Your task to perform on an android device: toggle location history Image 0: 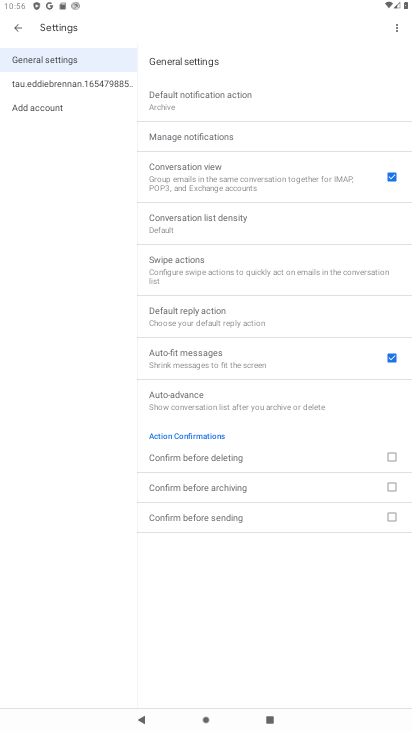
Step 0: press home button
Your task to perform on an android device: toggle location history Image 1: 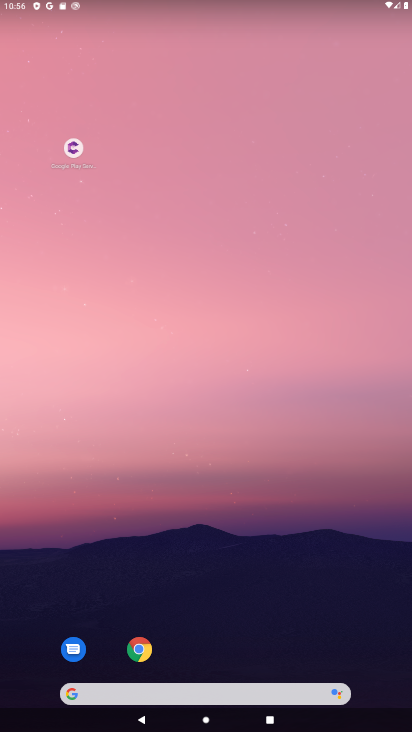
Step 1: click (257, 323)
Your task to perform on an android device: toggle location history Image 2: 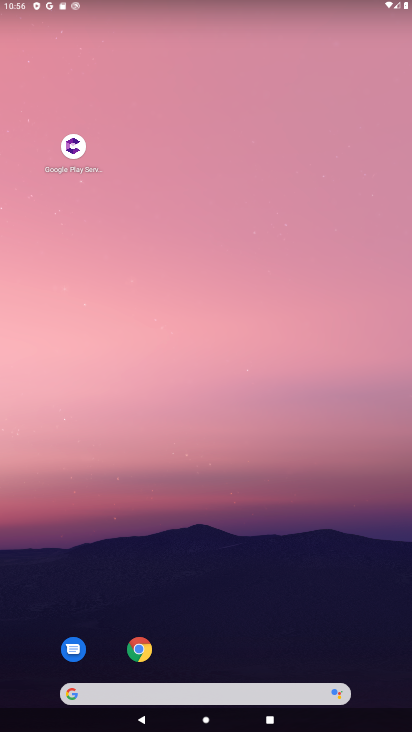
Step 2: drag from (200, 629) to (205, 268)
Your task to perform on an android device: toggle location history Image 3: 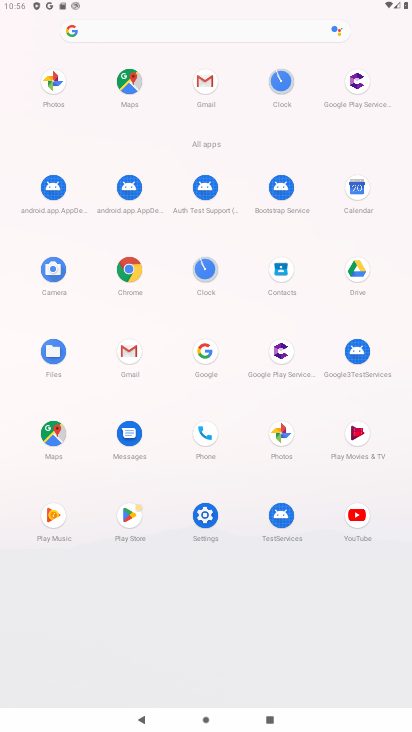
Step 3: click (206, 510)
Your task to perform on an android device: toggle location history Image 4: 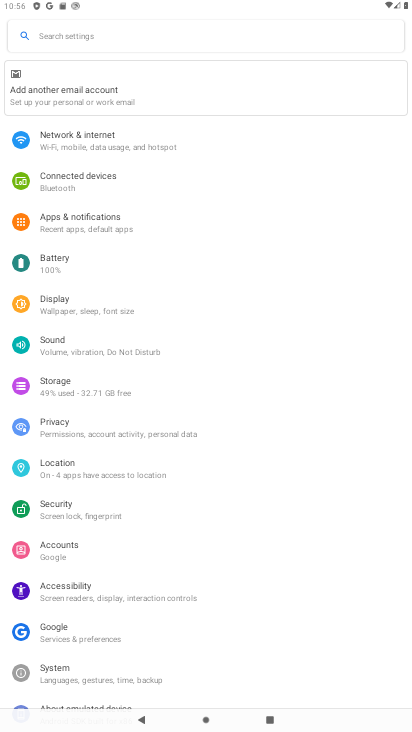
Step 4: click (77, 460)
Your task to perform on an android device: toggle location history Image 5: 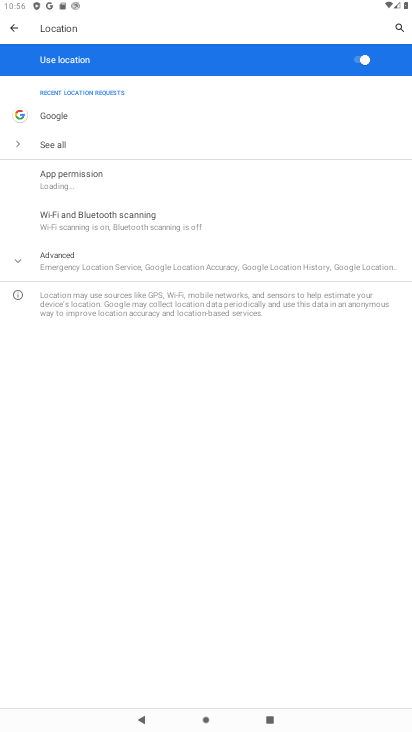
Step 5: click (117, 258)
Your task to perform on an android device: toggle location history Image 6: 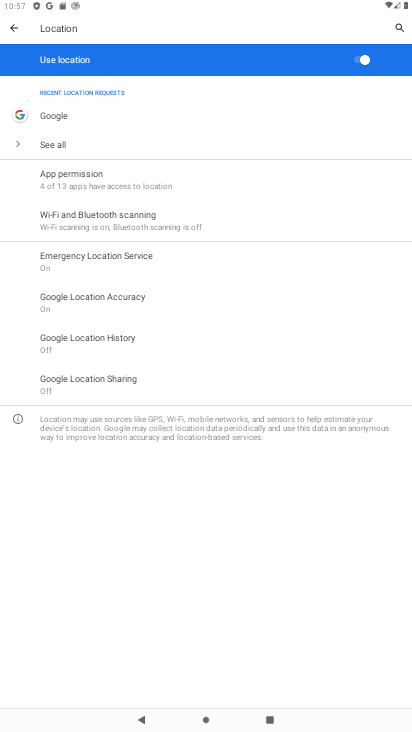
Step 6: click (124, 343)
Your task to perform on an android device: toggle location history Image 7: 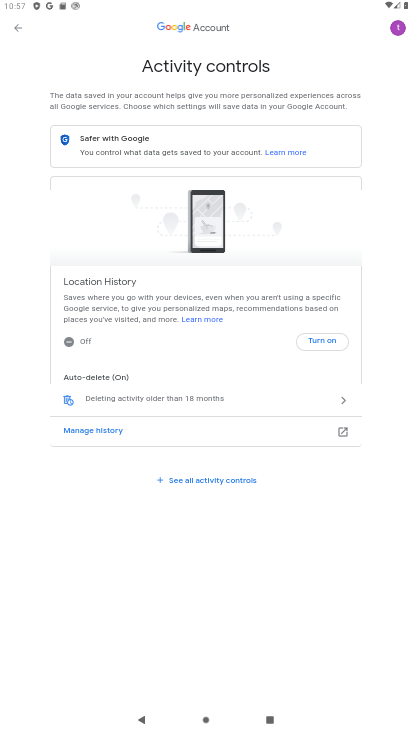
Step 7: click (319, 338)
Your task to perform on an android device: toggle location history Image 8: 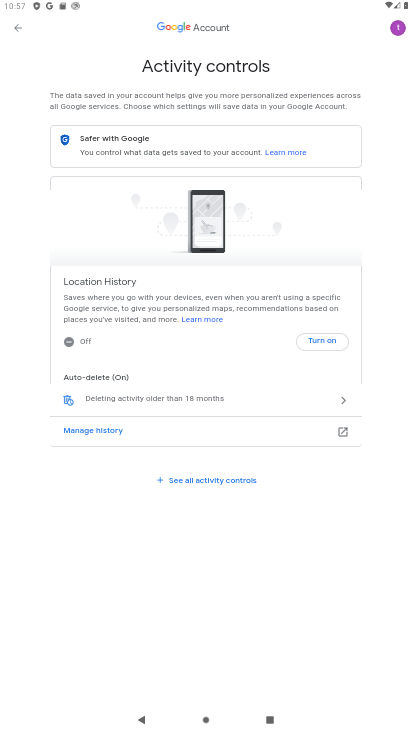
Step 8: task complete